Your task to perform on an android device: Search for "amazon basics triple a" on target, select the first entry, and add it to the cart. Image 0: 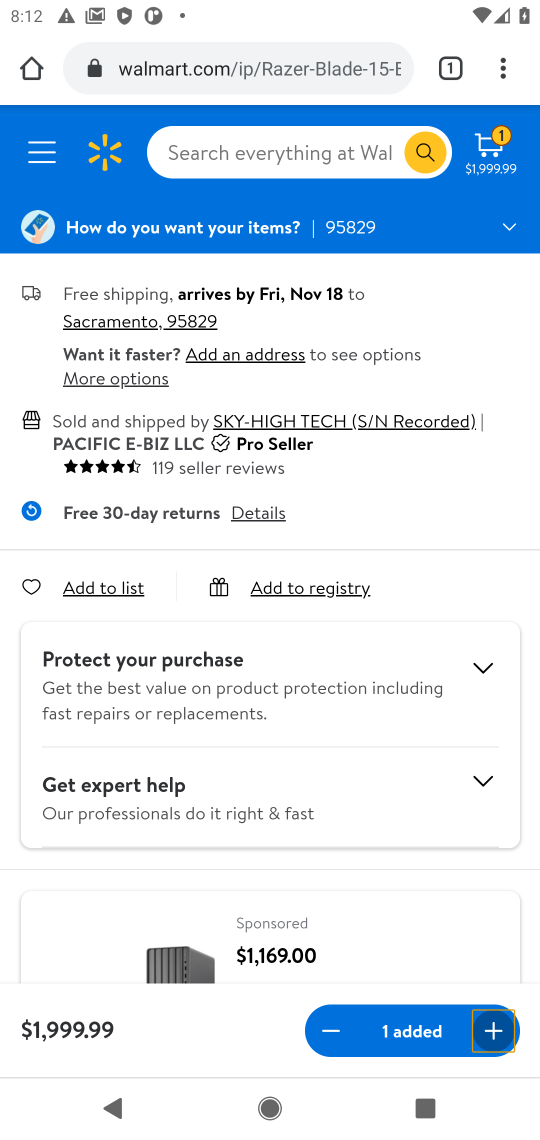
Step 0: press home button
Your task to perform on an android device: Search for "amazon basics triple a" on target, select the first entry, and add it to the cart. Image 1: 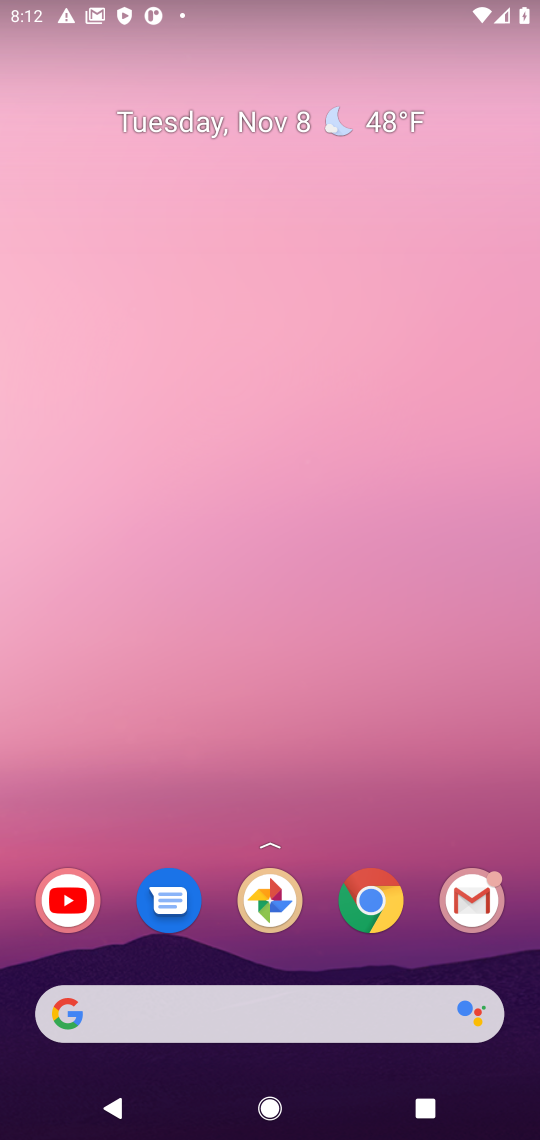
Step 1: click (354, 895)
Your task to perform on an android device: Search for "amazon basics triple a" on target, select the first entry, and add it to the cart. Image 2: 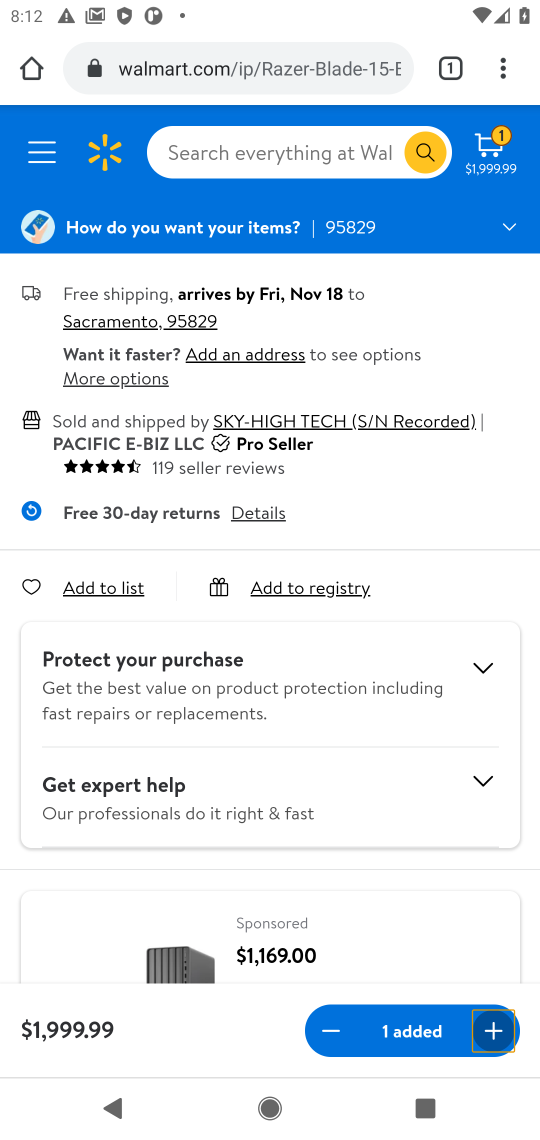
Step 2: click (180, 75)
Your task to perform on an android device: Search for "amazon basics triple a" on target, select the first entry, and add it to the cart. Image 3: 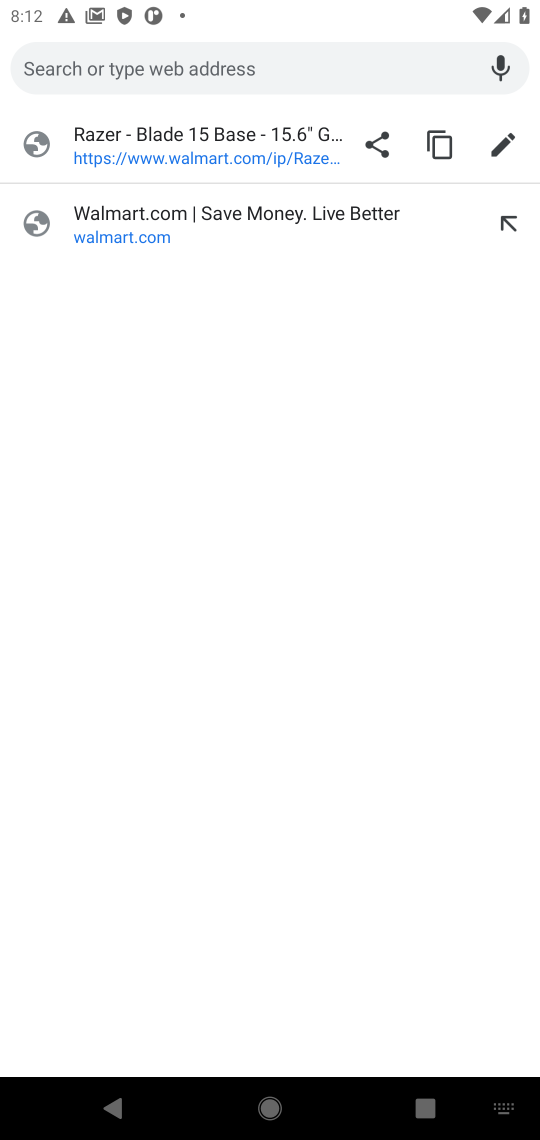
Step 3: type "target"
Your task to perform on an android device: Search for "amazon basics triple a" on target, select the first entry, and add it to the cart. Image 4: 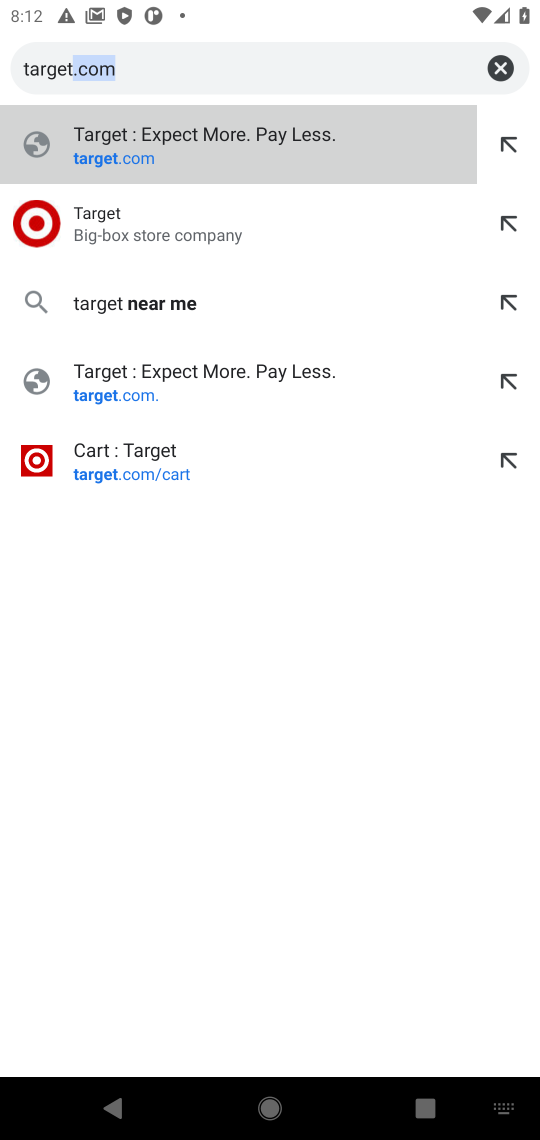
Step 4: click (100, 223)
Your task to perform on an android device: Search for "amazon basics triple a" on target, select the first entry, and add it to the cart. Image 5: 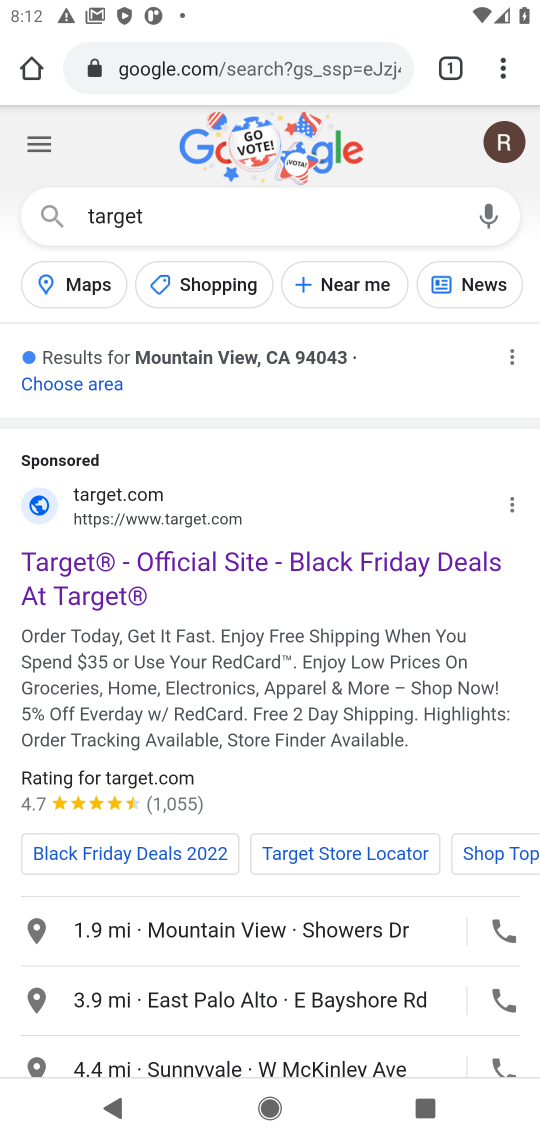
Step 5: drag from (188, 803) to (239, 359)
Your task to perform on an android device: Search for "amazon basics triple a" on target, select the first entry, and add it to the cart. Image 6: 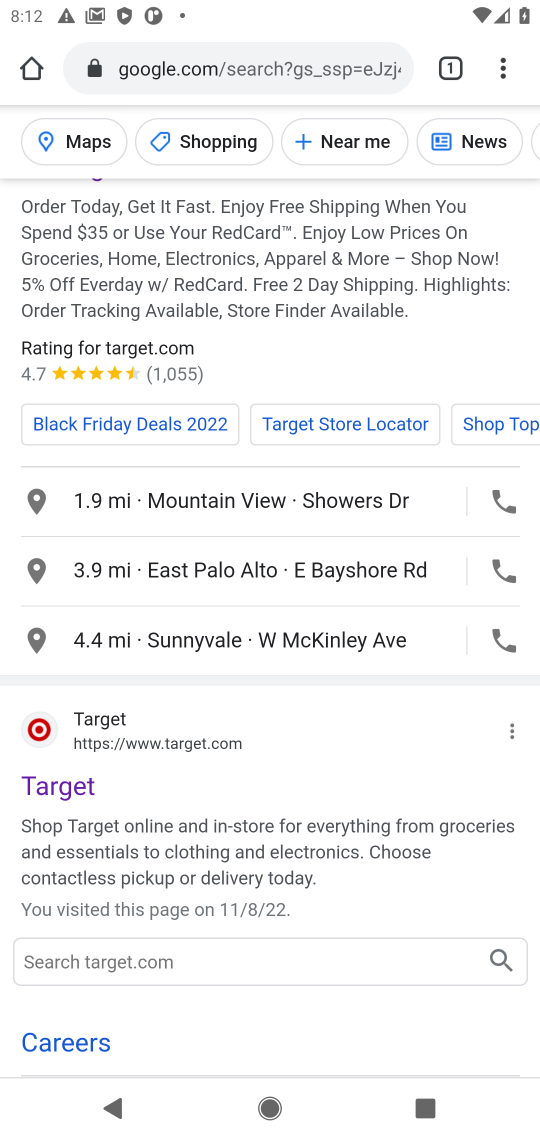
Step 6: click (73, 787)
Your task to perform on an android device: Search for "amazon basics triple a" on target, select the first entry, and add it to the cart. Image 7: 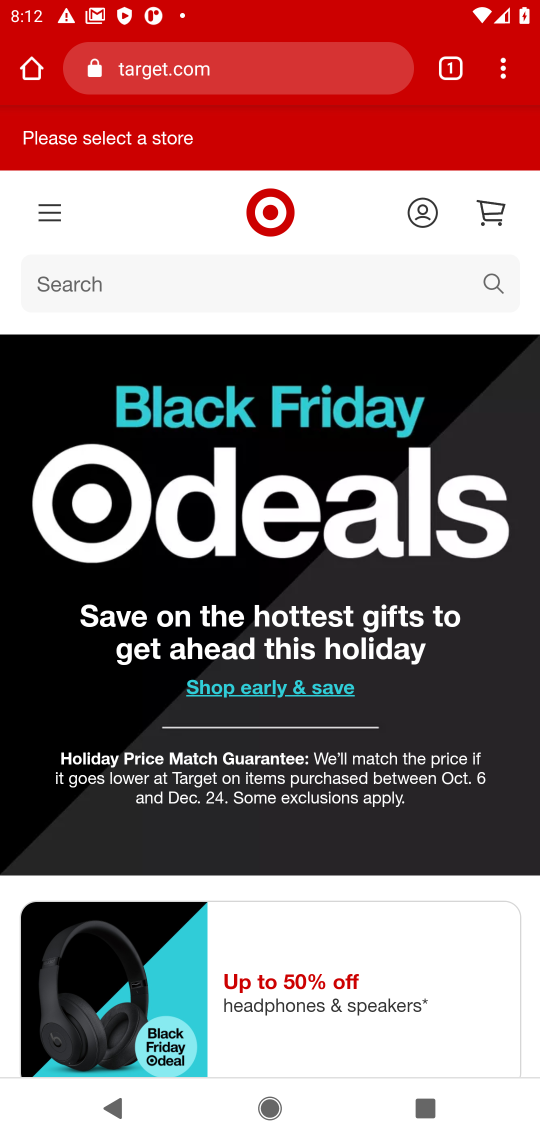
Step 7: click (496, 288)
Your task to perform on an android device: Search for "amazon basics triple a" on target, select the first entry, and add it to the cart. Image 8: 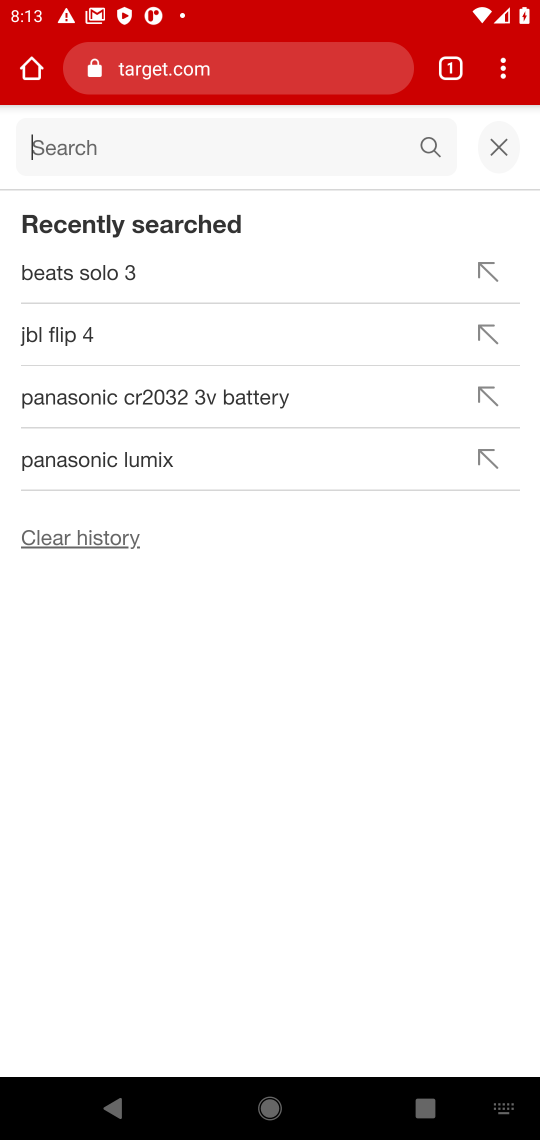
Step 8: type "basic triple"
Your task to perform on an android device: Search for "amazon basics triple a" on target, select the first entry, and add it to the cart. Image 9: 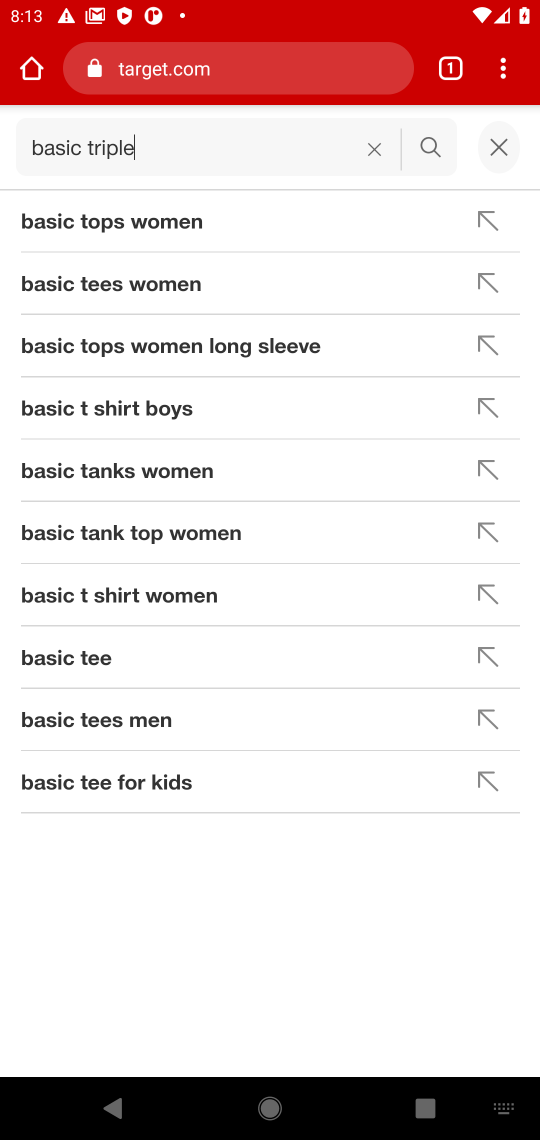
Step 9: type ""
Your task to perform on an android device: Search for "amazon basics triple a" on target, select the first entry, and add it to the cart. Image 10: 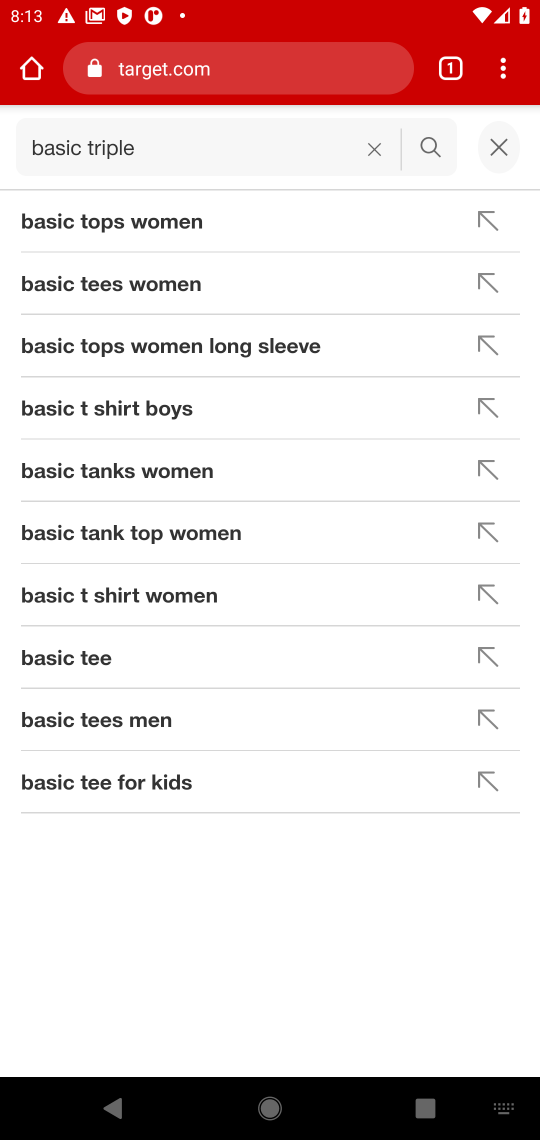
Step 10: click (433, 137)
Your task to perform on an android device: Search for "amazon basics triple a" on target, select the first entry, and add it to the cart. Image 11: 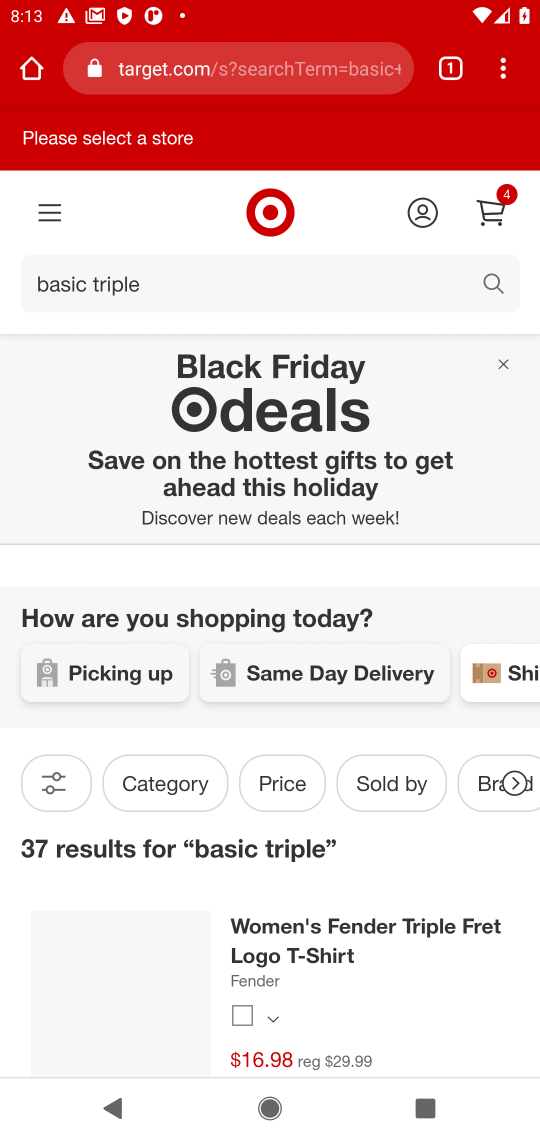
Step 11: task complete